Your task to perform on an android device: Search for "razer blackwidow" on ebay.com, select the first entry, and add it to the cart. Image 0: 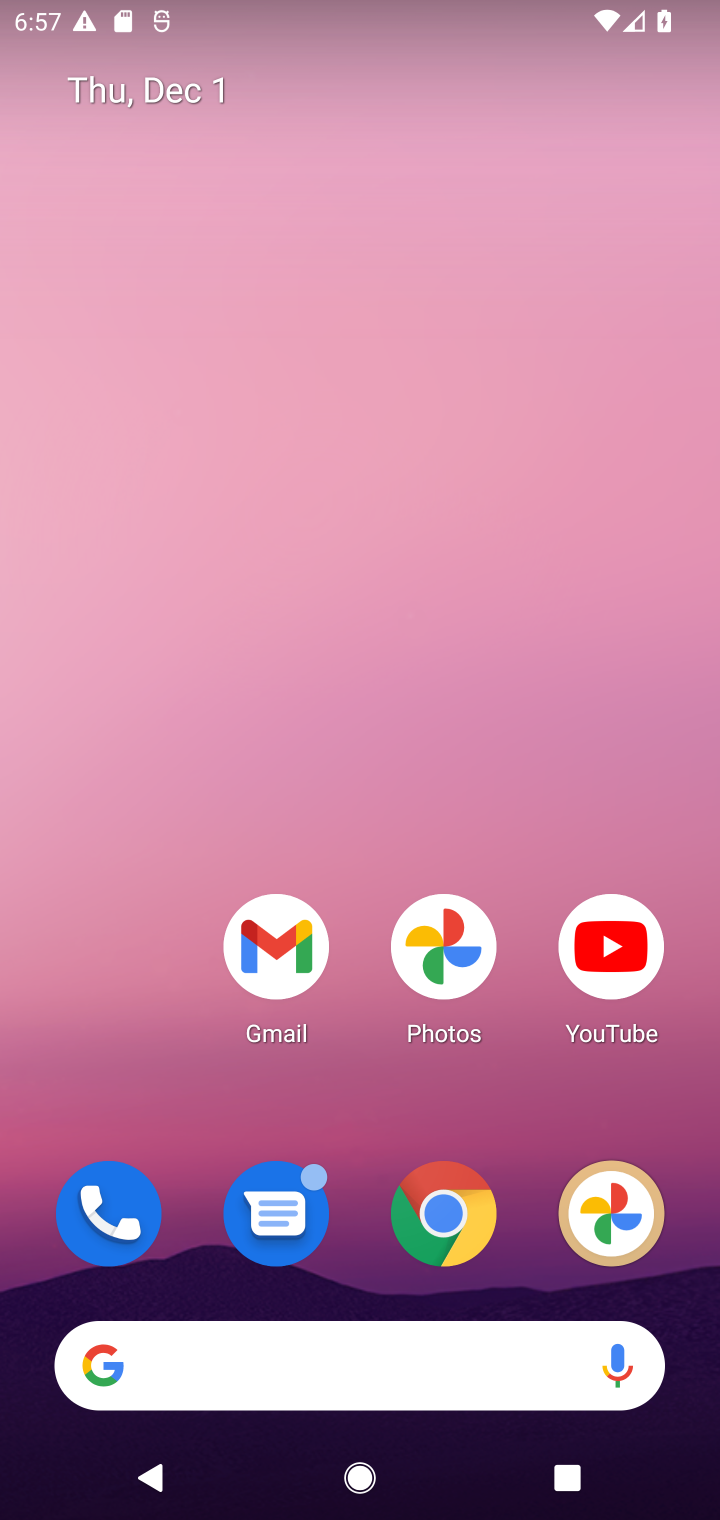
Step 0: click (278, 1371)
Your task to perform on an android device: Search for "razer blackwidow" on ebay.com, select the first entry, and add it to the cart. Image 1: 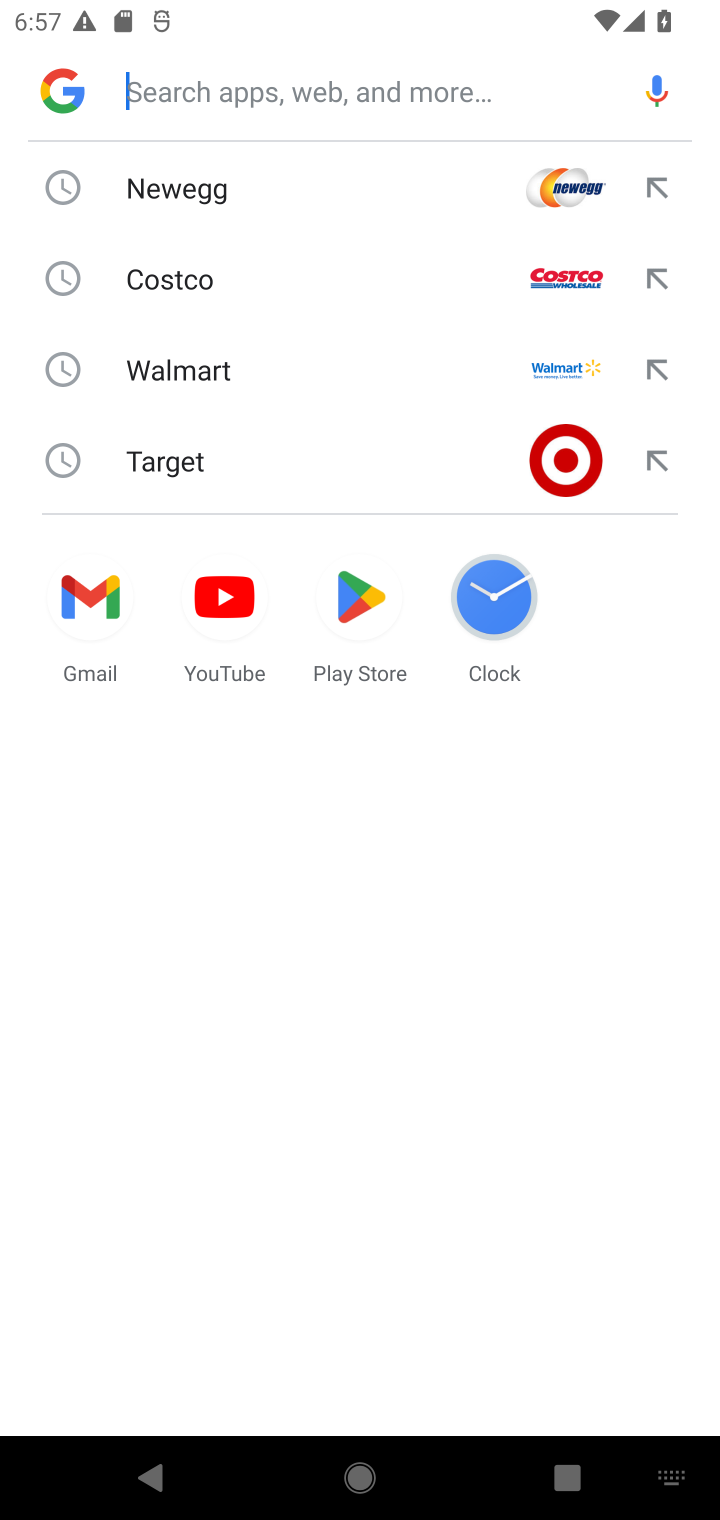
Step 1: type "ebay.com"
Your task to perform on an android device: Search for "razer blackwidow" on ebay.com, select the first entry, and add it to the cart. Image 2: 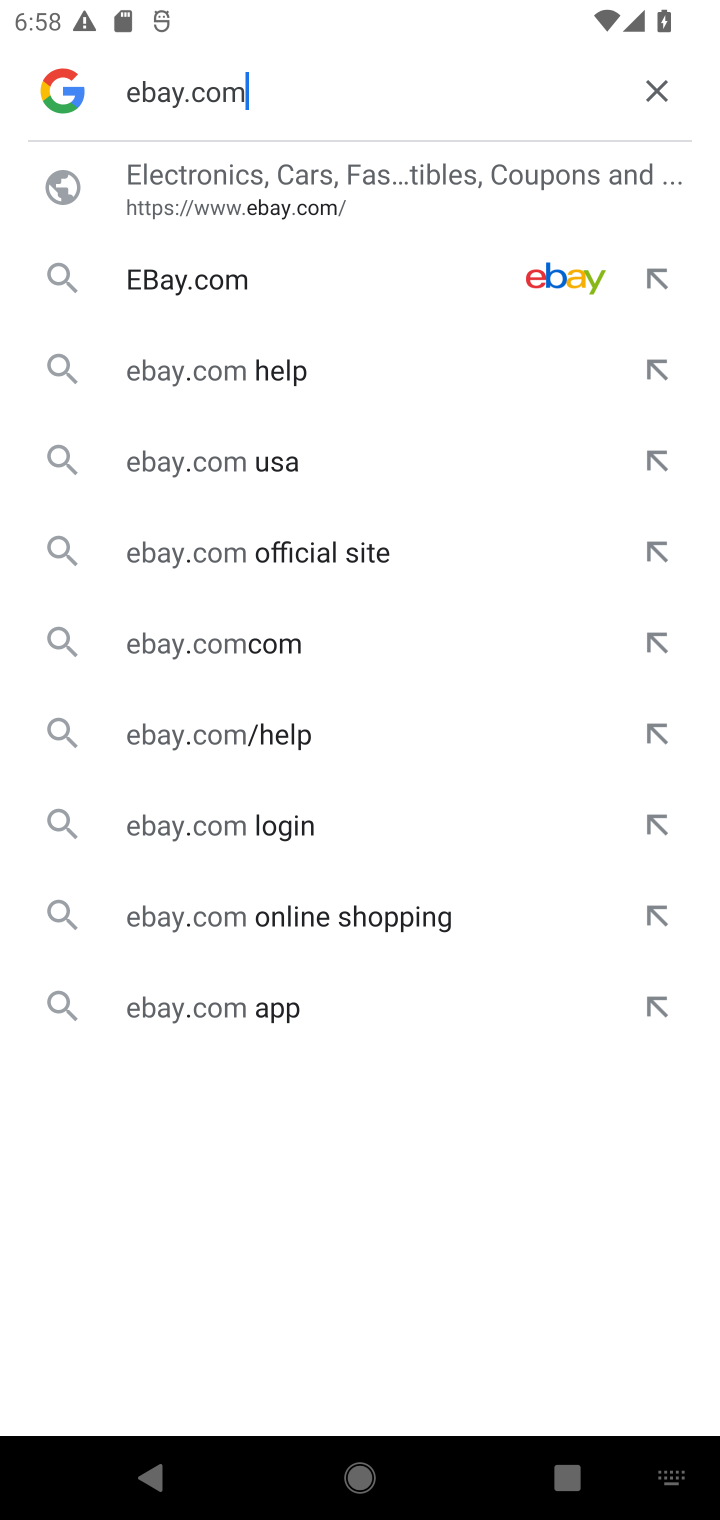
Step 2: click (244, 210)
Your task to perform on an android device: Search for "razer blackwidow" on ebay.com, select the first entry, and add it to the cart. Image 3: 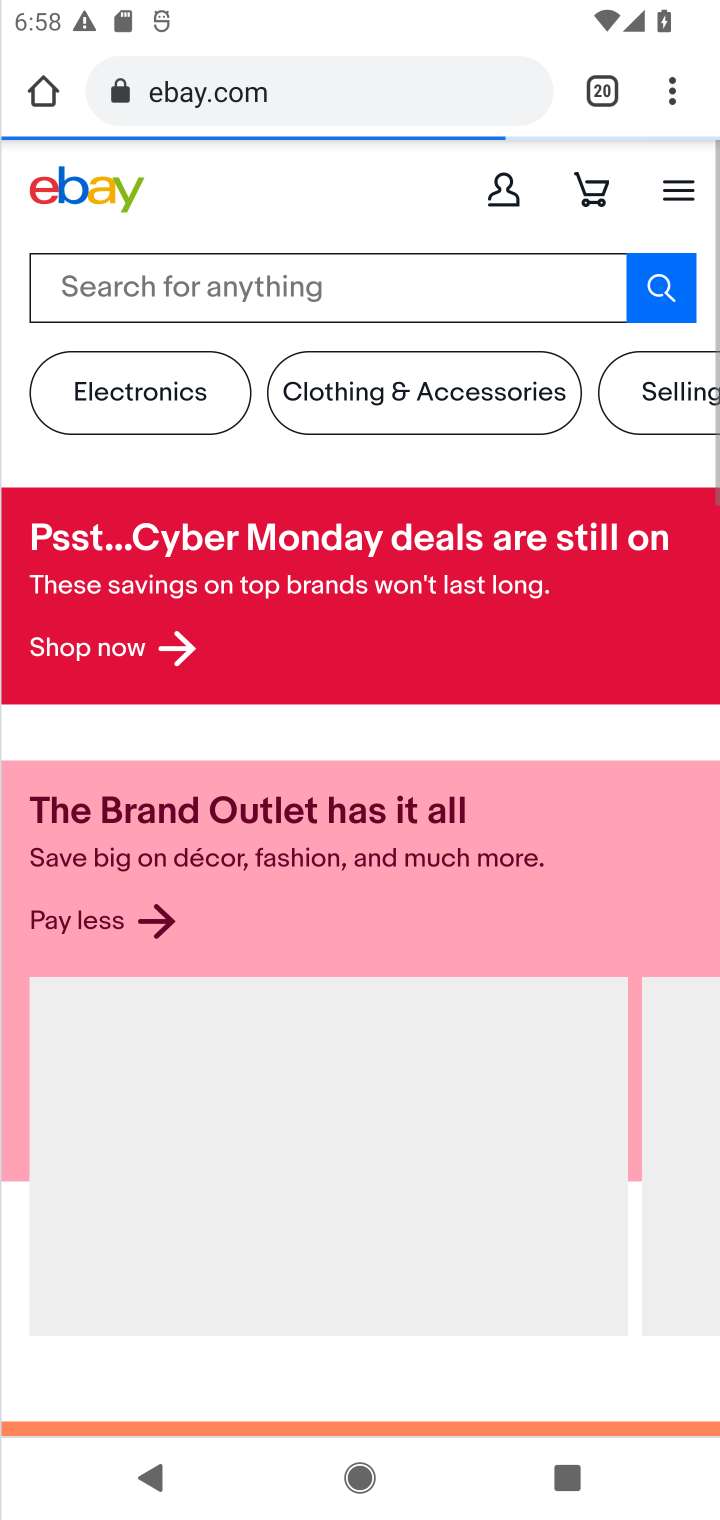
Step 3: task complete